Your task to perform on an android device: Go to ESPN.com Image 0: 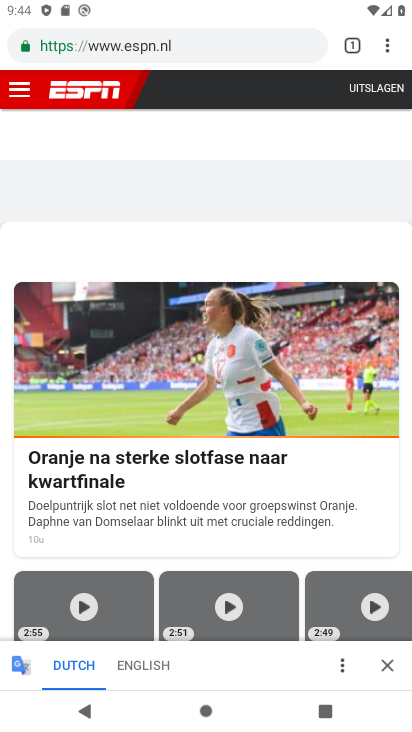
Step 0: drag from (200, 647) to (178, 343)
Your task to perform on an android device: Go to ESPN.com Image 1: 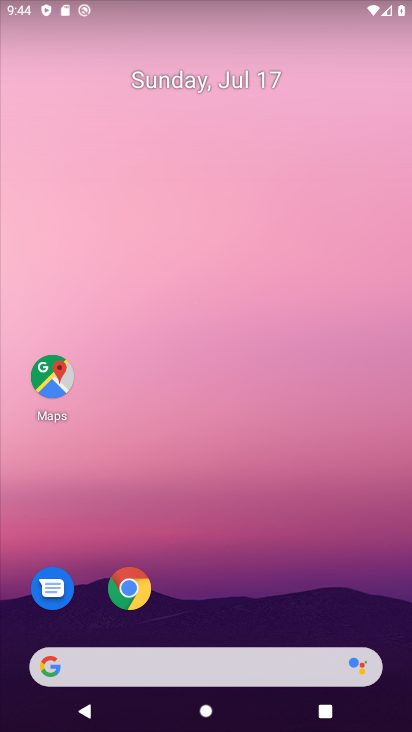
Step 1: click (146, 588)
Your task to perform on an android device: Go to ESPN.com Image 2: 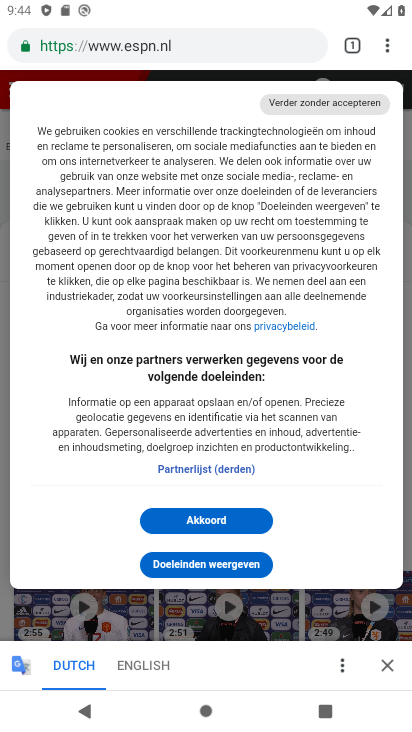
Step 2: drag from (169, 138) to (147, 467)
Your task to perform on an android device: Go to ESPN.com Image 3: 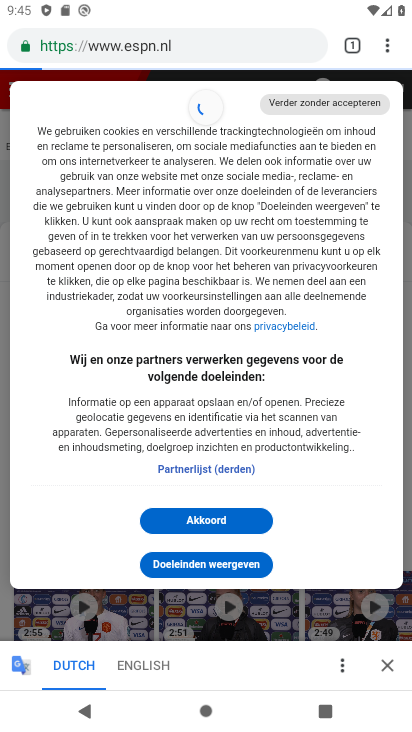
Step 3: click (220, 517)
Your task to perform on an android device: Go to ESPN.com Image 4: 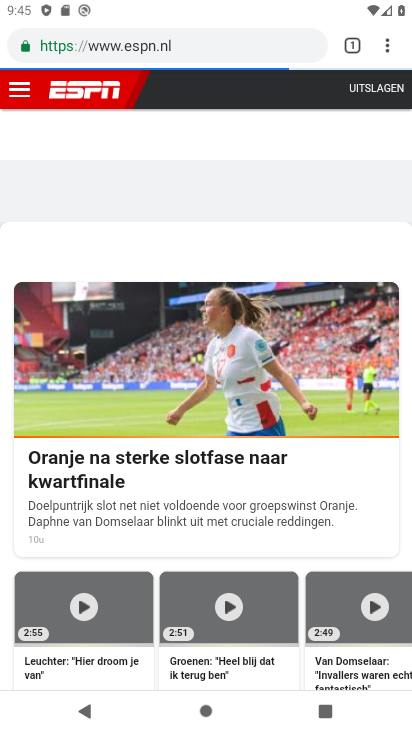
Step 4: task complete